Your task to perform on an android device: change notifications settings Image 0: 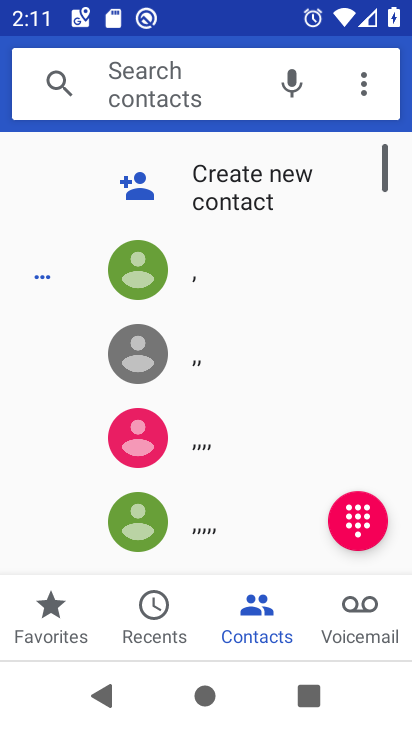
Step 0: press home button
Your task to perform on an android device: change notifications settings Image 1: 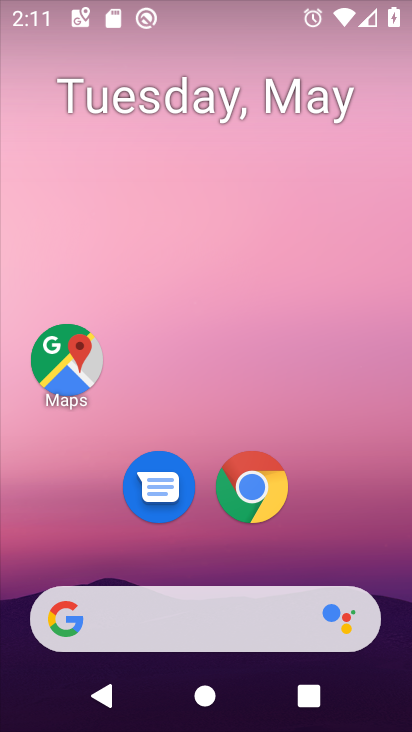
Step 1: drag from (52, 523) to (197, 195)
Your task to perform on an android device: change notifications settings Image 2: 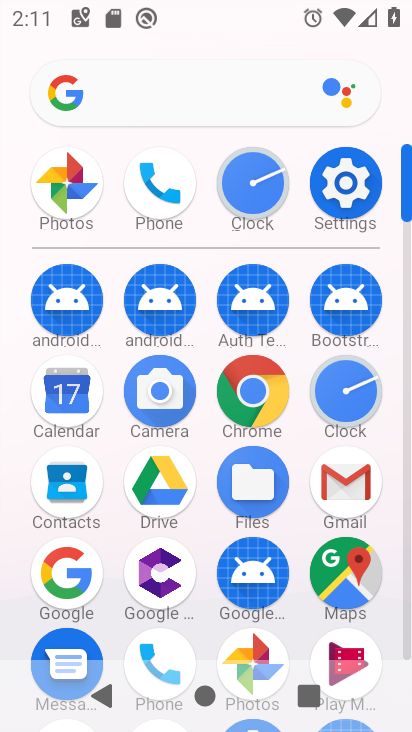
Step 2: click (336, 186)
Your task to perform on an android device: change notifications settings Image 3: 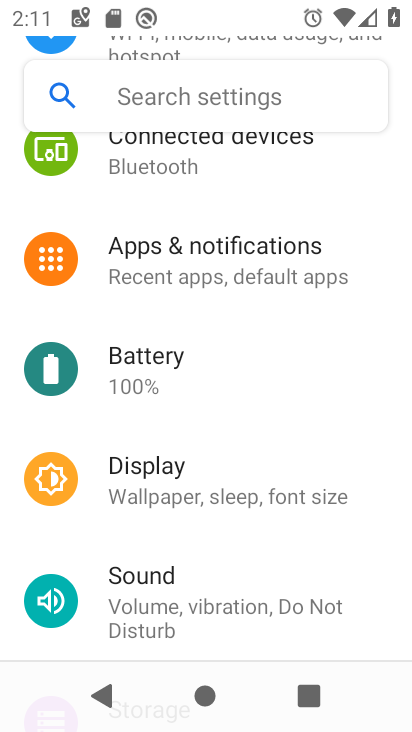
Step 3: click (224, 256)
Your task to perform on an android device: change notifications settings Image 4: 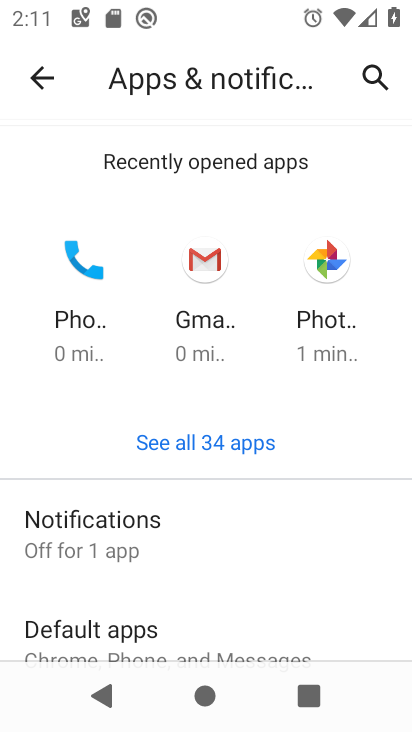
Step 4: drag from (24, 396) to (169, 123)
Your task to perform on an android device: change notifications settings Image 5: 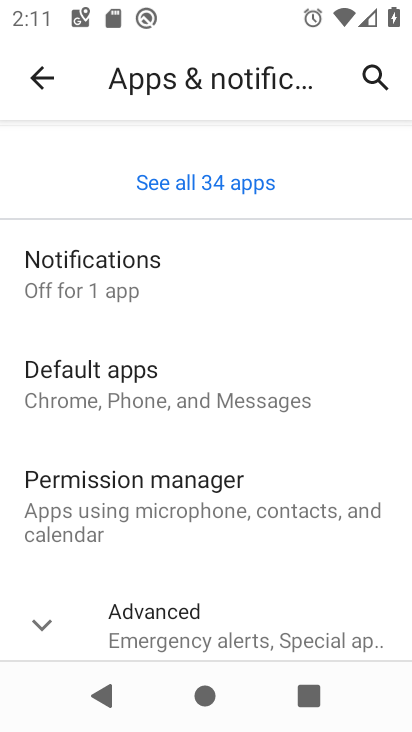
Step 5: click (133, 284)
Your task to perform on an android device: change notifications settings Image 6: 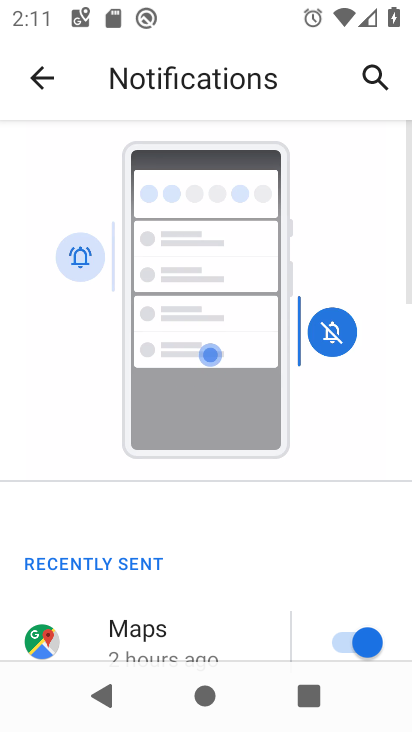
Step 6: task complete